Your task to perform on an android device: Open Google Image 0: 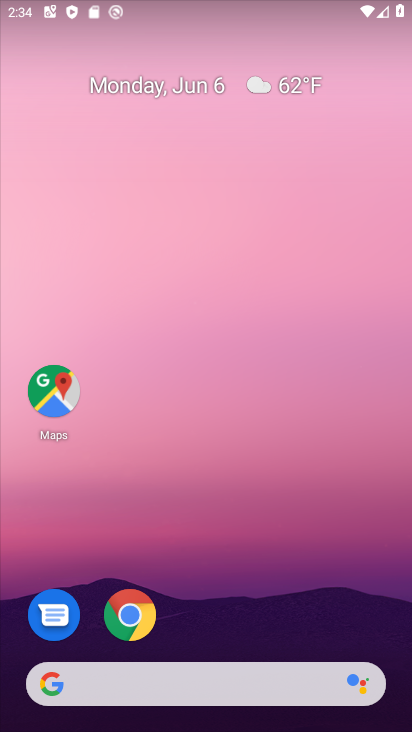
Step 0: drag from (314, 710) to (239, 19)
Your task to perform on an android device: Open Google Image 1: 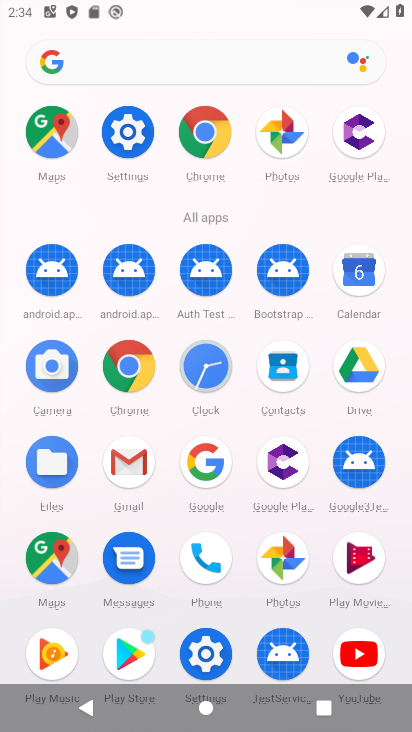
Step 1: click (127, 378)
Your task to perform on an android device: Open Google Image 2: 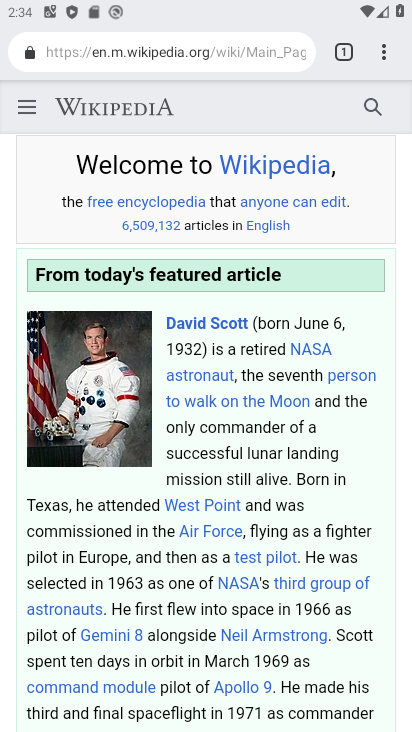
Step 2: task complete